Your task to perform on an android device: Go to settings Image 0: 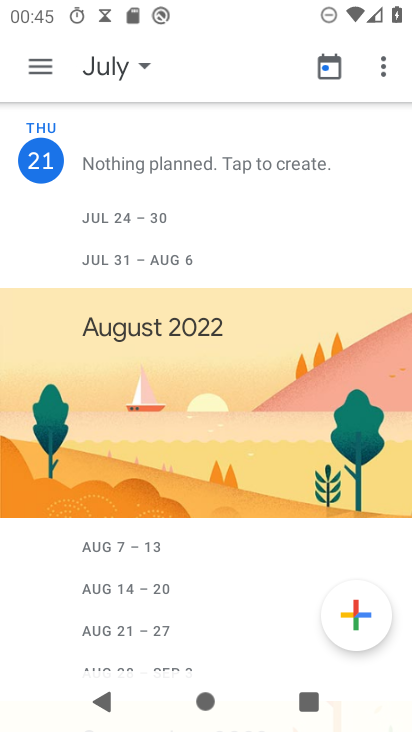
Step 0: press home button
Your task to perform on an android device: Go to settings Image 1: 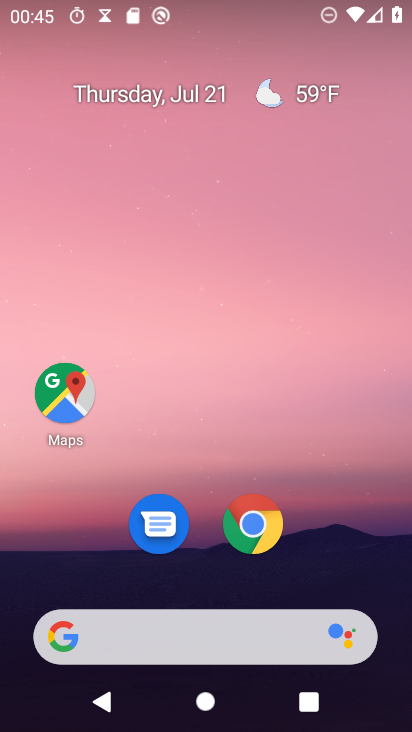
Step 1: drag from (222, 643) to (322, 167)
Your task to perform on an android device: Go to settings Image 2: 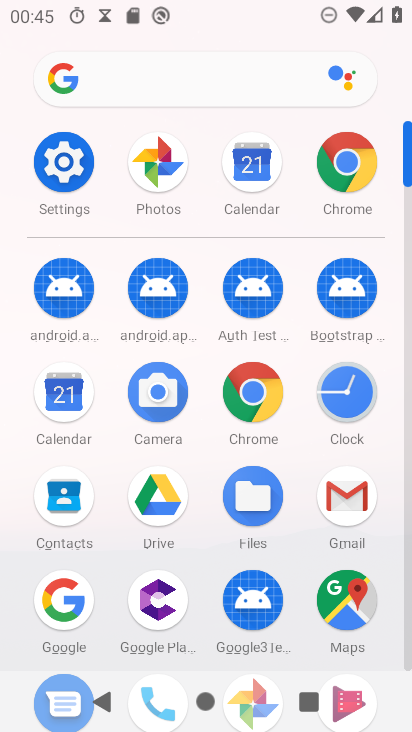
Step 2: click (57, 161)
Your task to perform on an android device: Go to settings Image 3: 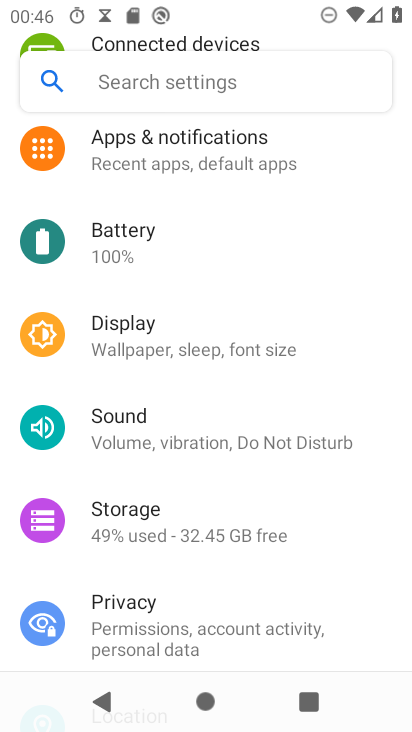
Step 3: task complete